Your task to perform on an android device: turn on translation in the chrome app Image 0: 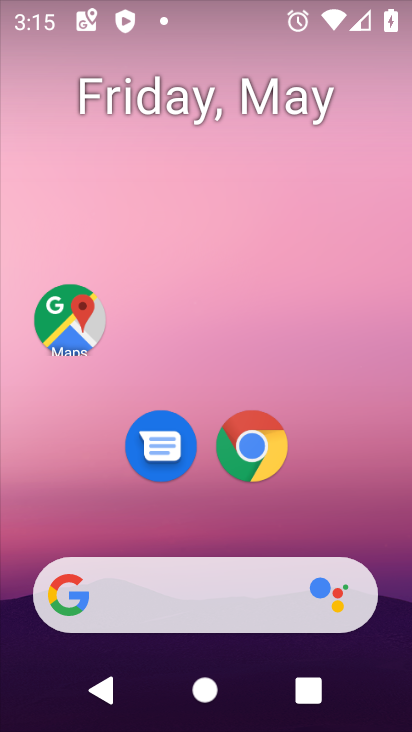
Step 0: click (269, 453)
Your task to perform on an android device: turn on translation in the chrome app Image 1: 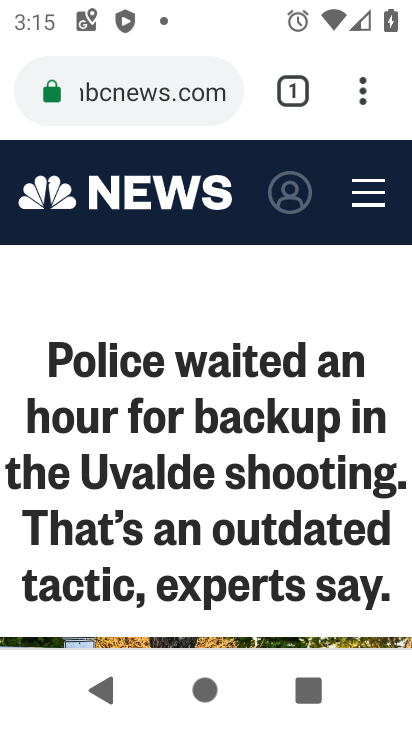
Step 1: click (370, 103)
Your task to perform on an android device: turn on translation in the chrome app Image 2: 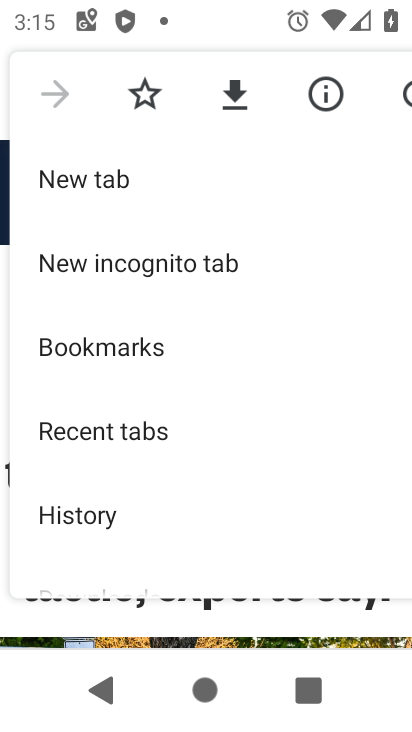
Step 2: drag from (235, 561) to (202, 175)
Your task to perform on an android device: turn on translation in the chrome app Image 3: 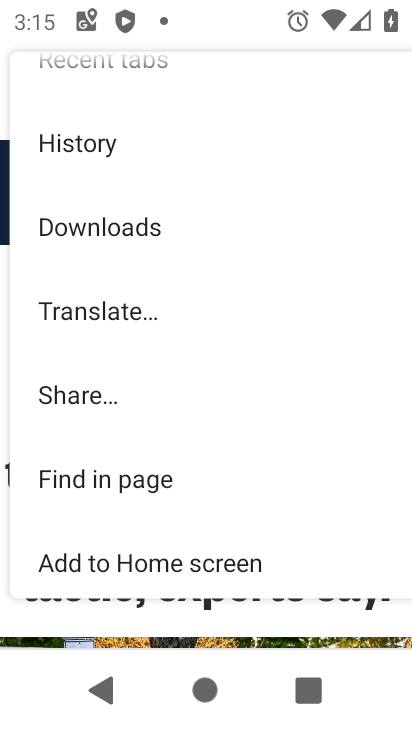
Step 3: drag from (235, 497) to (203, 71)
Your task to perform on an android device: turn on translation in the chrome app Image 4: 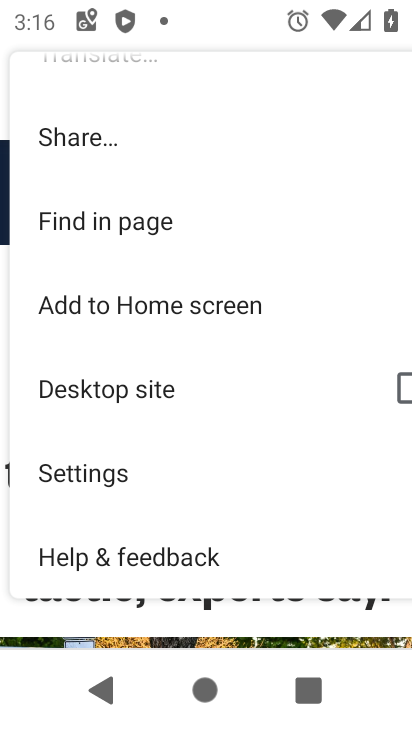
Step 4: click (187, 459)
Your task to perform on an android device: turn on translation in the chrome app Image 5: 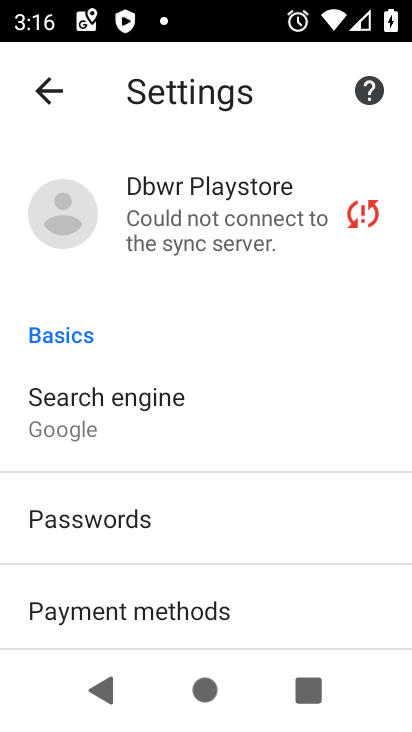
Step 5: drag from (227, 636) to (206, 233)
Your task to perform on an android device: turn on translation in the chrome app Image 6: 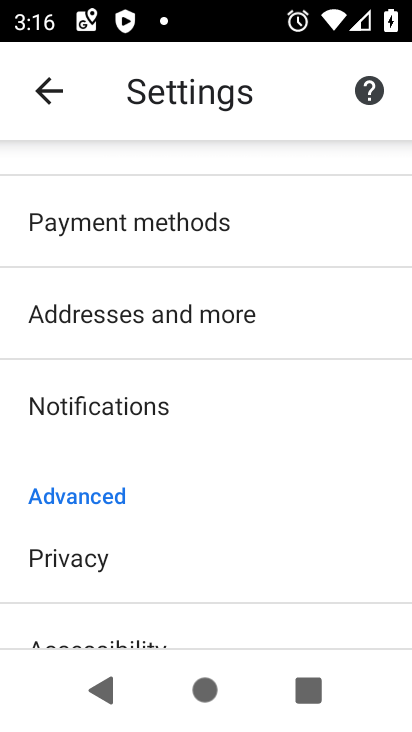
Step 6: drag from (234, 624) to (221, 188)
Your task to perform on an android device: turn on translation in the chrome app Image 7: 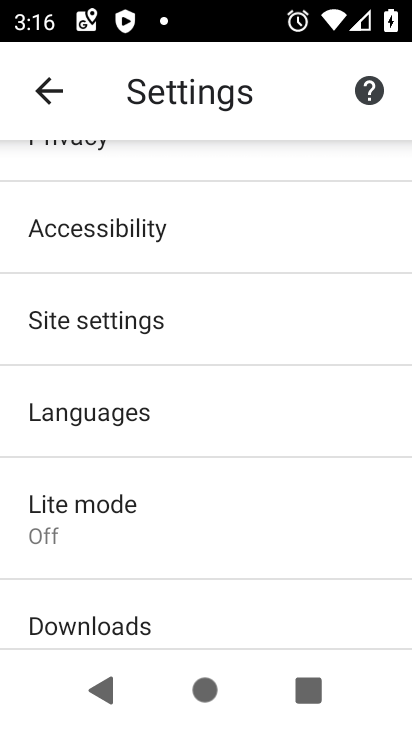
Step 7: click (211, 431)
Your task to perform on an android device: turn on translation in the chrome app Image 8: 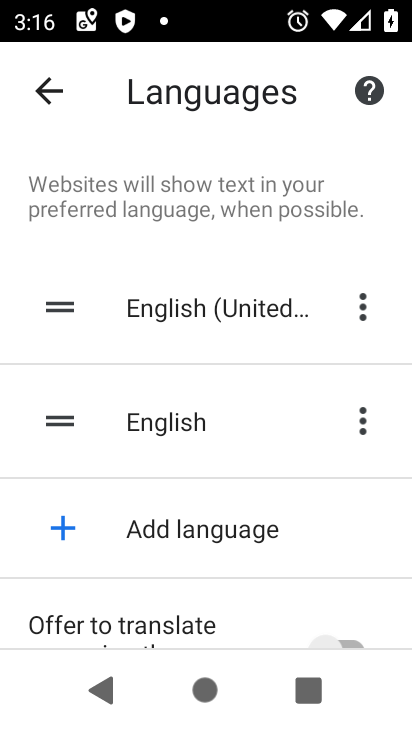
Step 8: drag from (266, 618) to (234, 286)
Your task to perform on an android device: turn on translation in the chrome app Image 9: 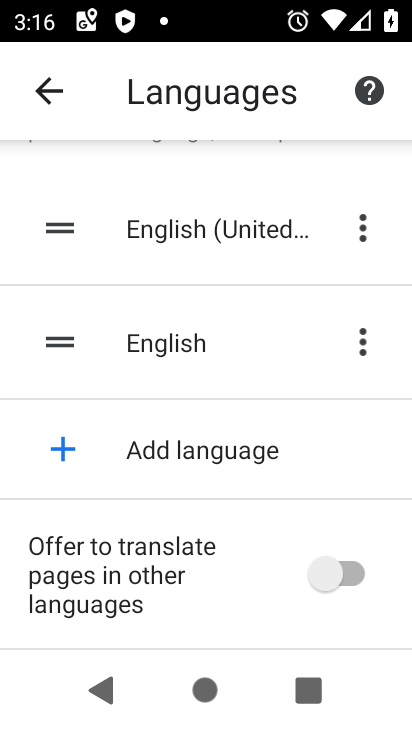
Step 9: click (350, 574)
Your task to perform on an android device: turn on translation in the chrome app Image 10: 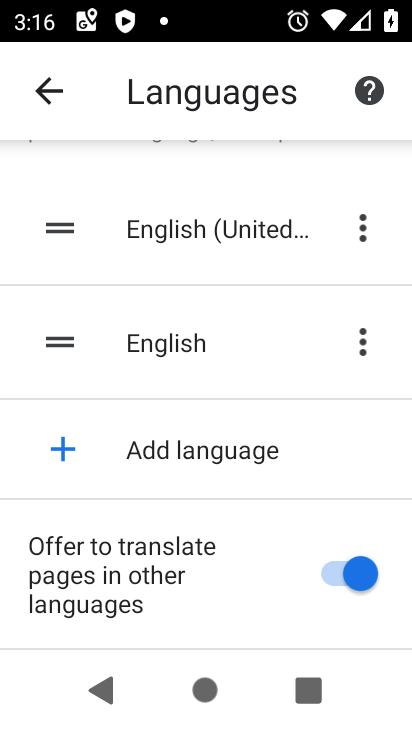
Step 10: task complete